Your task to perform on an android device: When is my next appointment? Image 0: 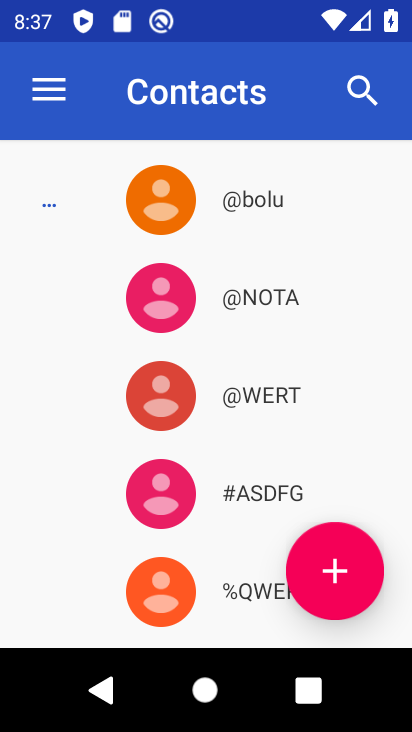
Step 0: press home button
Your task to perform on an android device: When is my next appointment? Image 1: 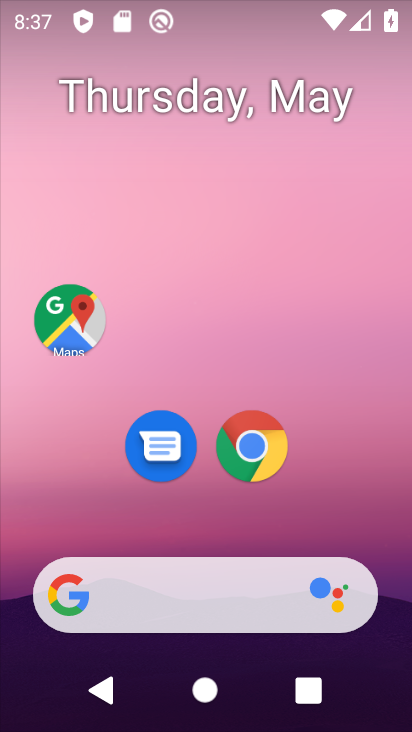
Step 1: drag from (395, 637) to (313, 193)
Your task to perform on an android device: When is my next appointment? Image 2: 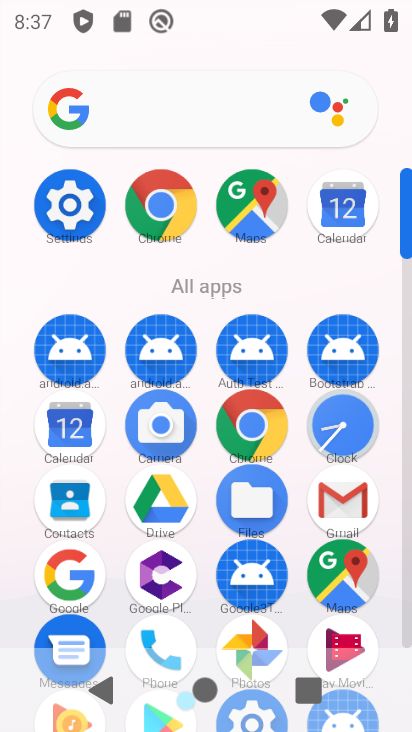
Step 2: click (406, 634)
Your task to perform on an android device: When is my next appointment? Image 3: 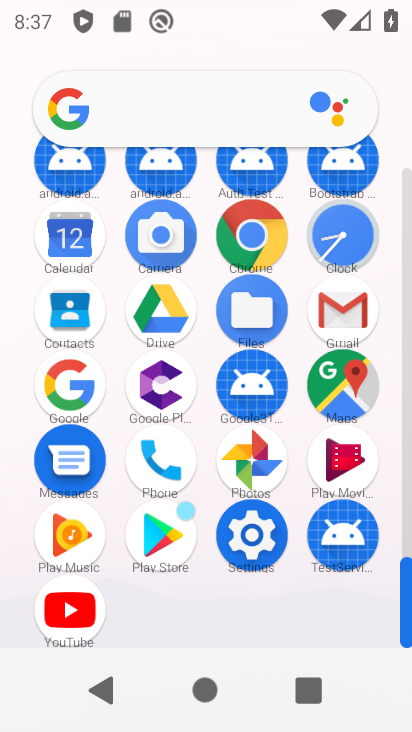
Step 3: click (67, 229)
Your task to perform on an android device: When is my next appointment? Image 4: 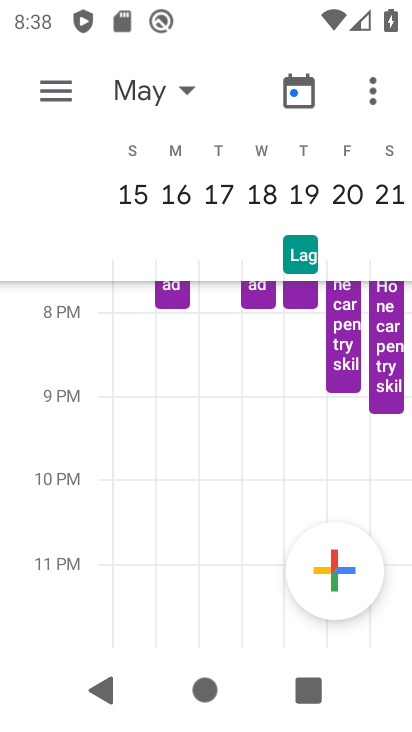
Step 4: click (60, 84)
Your task to perform on an android device: When is my next appointment? Image 5: 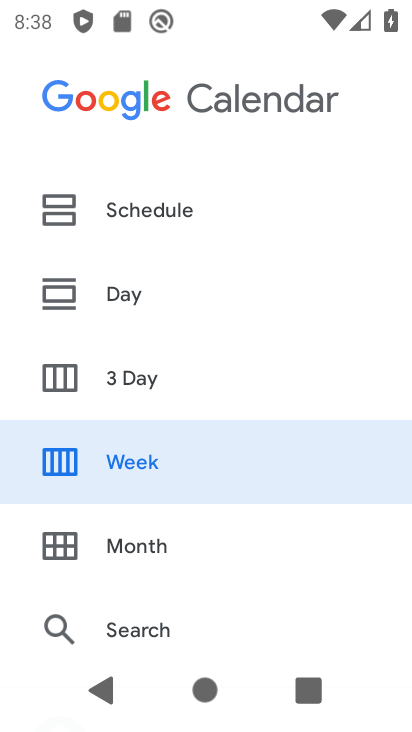
Step 5: click (146, 206)
Your task to perform on an android device: When is my next appointment? Image 6: 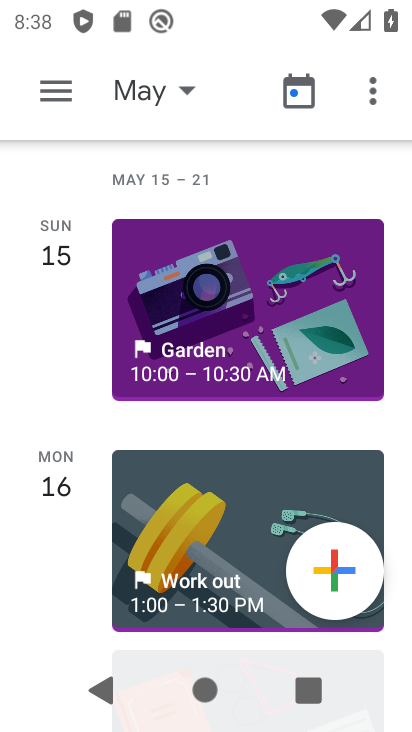
Step 6: click (186, 89)
Your task to perform on an android device: When is my next appointment? Image 7: 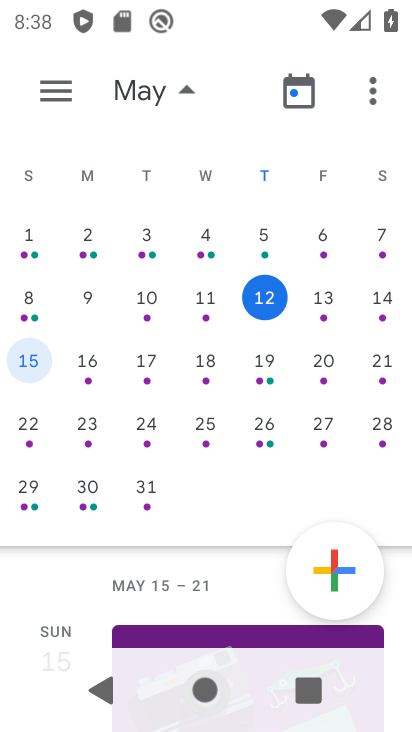
Step 7: click (49, 93)
Your task to perform on an android device: When is my next appointment? Image 8: 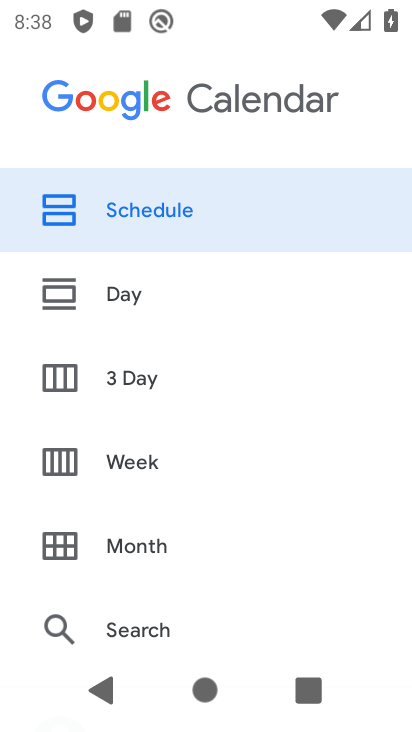
Step 8: click (116, 208)
Your task to perform on an android device: When is my next appointment? Image 9: 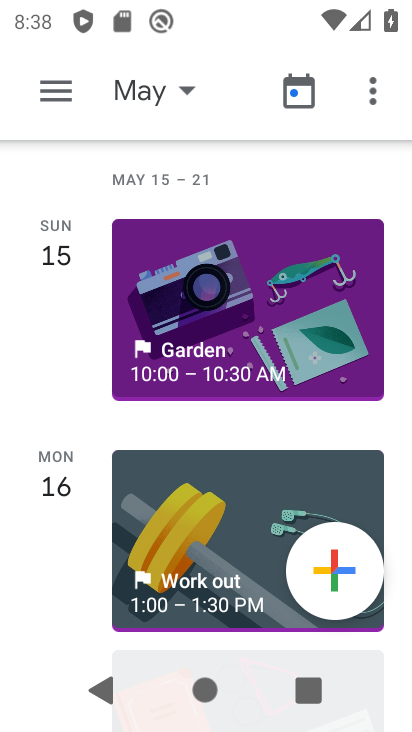
Step 9: task complete